Your task to perform on an android device: Show me productivity apps on the Play Store Image 0: 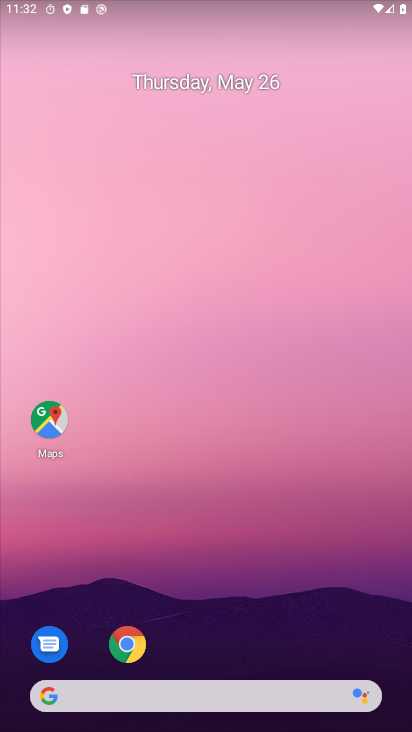
Step 0: drag from (277, 408) to (160, 8)
Your task to perform on an android device: Show me productivity apps on the Play Store Image 1: 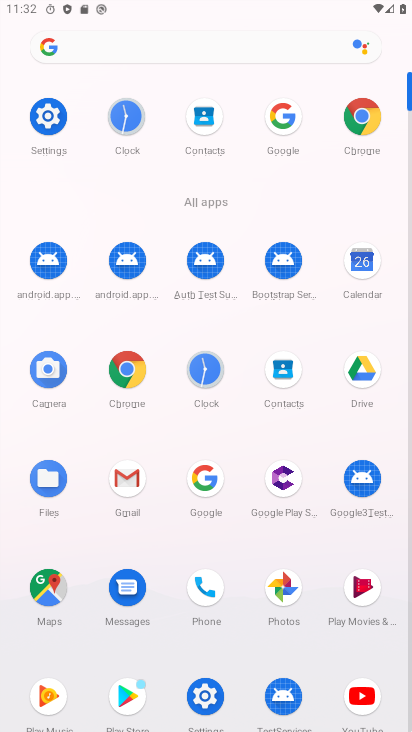
Step 1: drag from (251, 604) to (199, 185)
Your task to perform on an android device: Show me productivity apps on the Play Store Image 2: 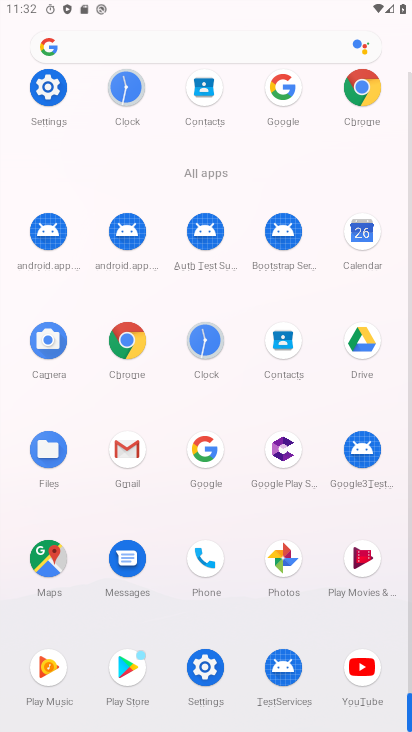
Step 2: click (134, 664)
Your task to perform on an android device: Show me productivity apps on the Play Store Image 3: 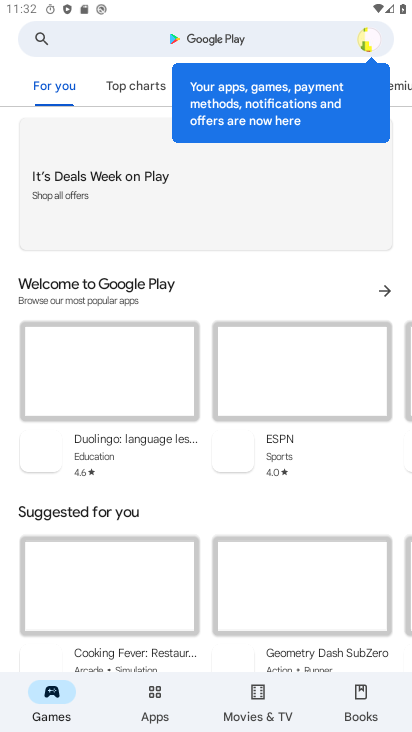
Step 3: click (163, 715)
Your task to perform on an android device: Show me productivity apps on the Play Store Image 4: 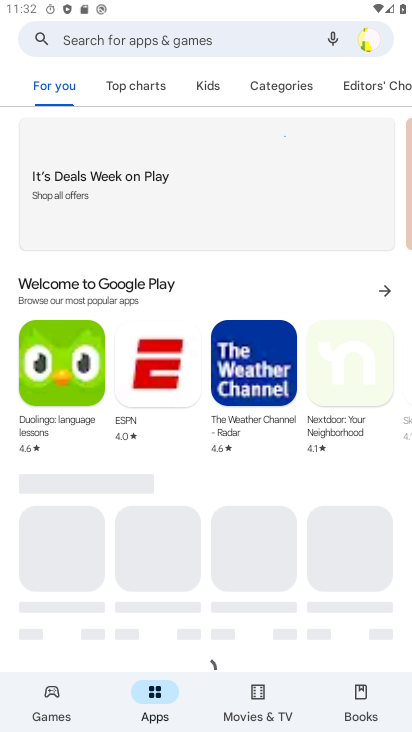
Step 4: click (153, 47)
Your task to perform on an android device: Show me productivity apps on the Play Store Image 5: 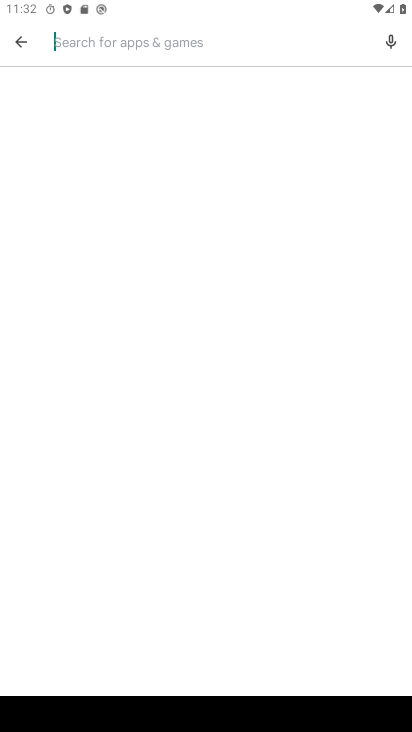
Step 5: type "productivity apps"
Your task to perform on an android device: Show me productivity apps on the Play Store Image 6: 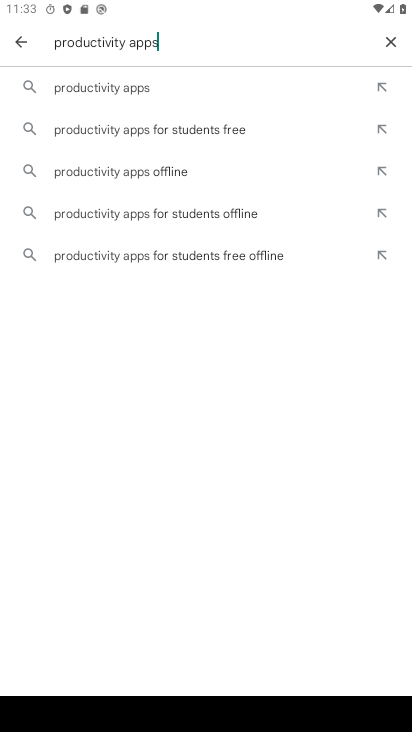
Step 6: click (158, 84)
Your task to perform on an android device: Show me productivity apps on the Play Store Image 7: 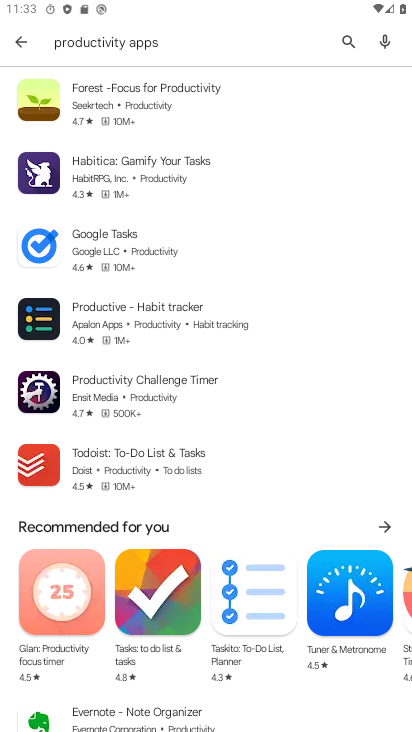
Step 7: task complete